Your task to perform on an android device: Open Google Maps and go to "Timeline" Image 0: 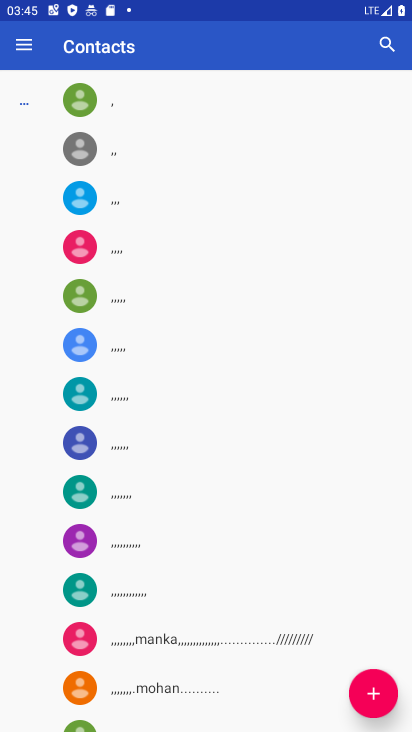
Step 0: press home button
Your task to perform on an android device: Open Google Maps and go to "Timeline" Image 1: 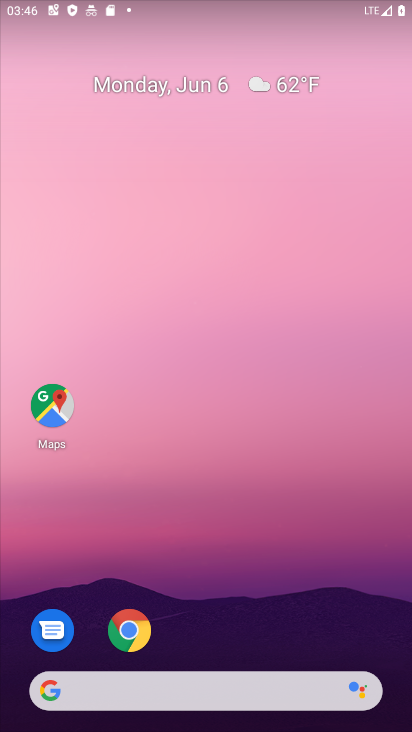
Step 1: drag from (316, 617) to (300, 129)
Your task to perform on an android device: Open Google Maps and go to "Timeline" Image 2: 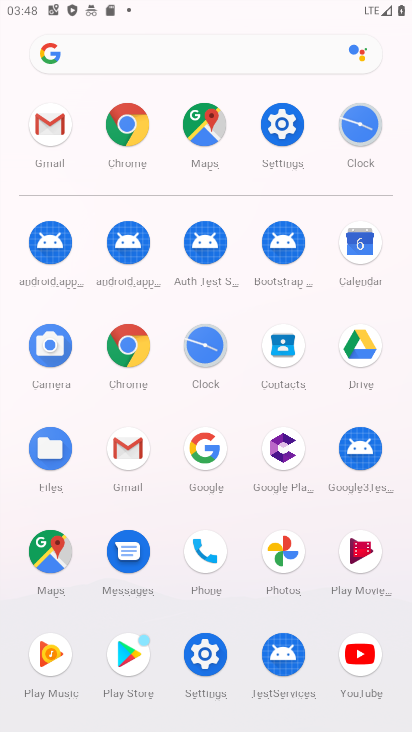
Step 2: click (62, 542)
Your task to perform on an android device: Open Google Maps and go to "Timeline" Image 3: 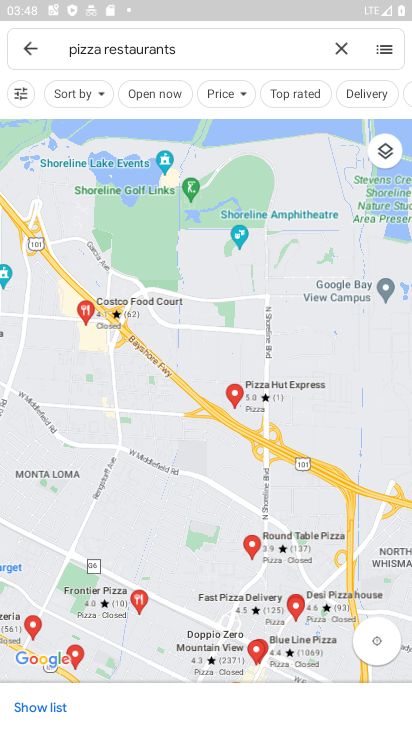
Step 3: click (35, 50)
Your task to perform on an android device: Open Google Maps and go to "Timeline" Image 4: 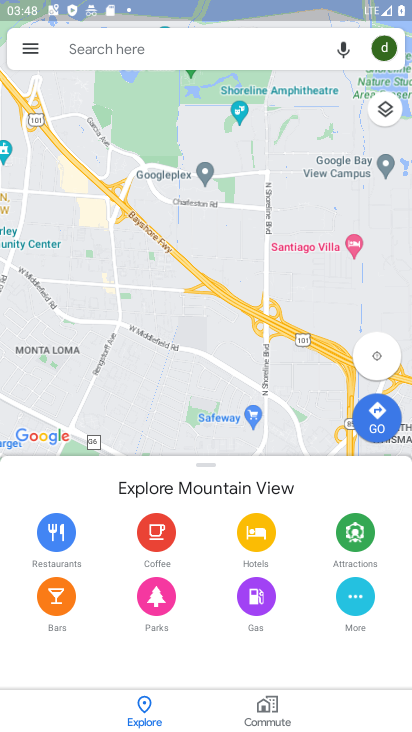
Step 4: click (35, 50)
Your task to perform on an android device: Open Google Maps and go to "Timeline" Image 5: 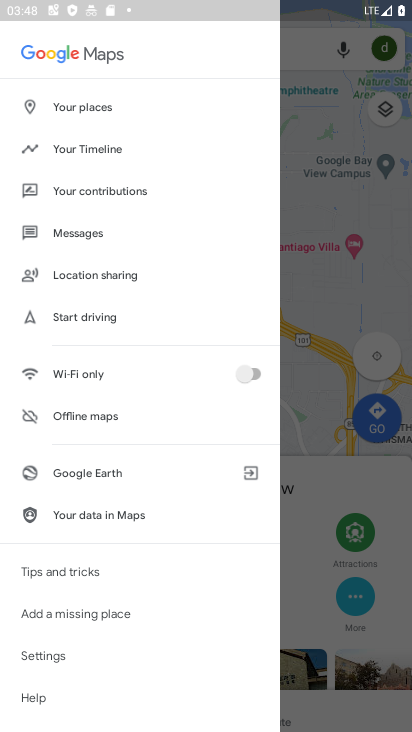
Step 5: click (118, 142)
Your task to perform on an android device: Open Google Maps and go to "Timeline" Image 6: 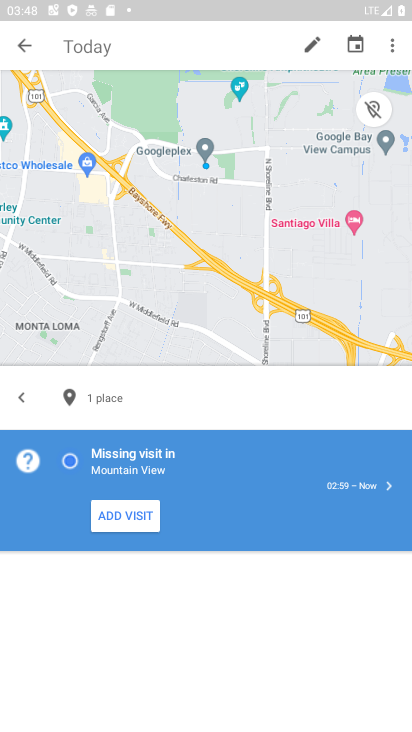
Step 6: task complete